Your task to perform on an android device: see tabs open on other devices in the chrome app Image 0: 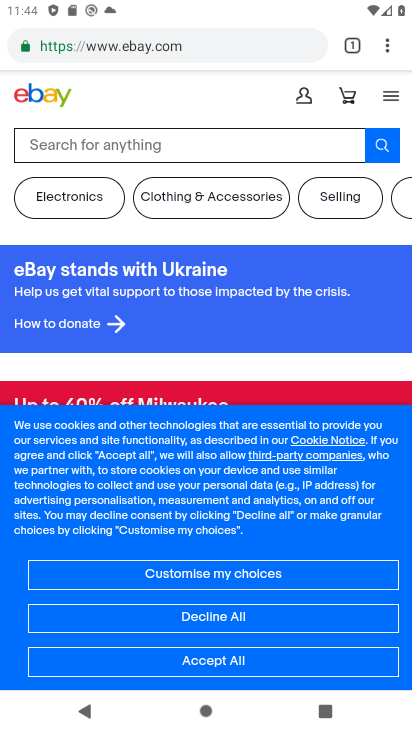
Step 0: press home button
Your task to perform on an android device: see tabs open on other devices in the chrome app Image 1: 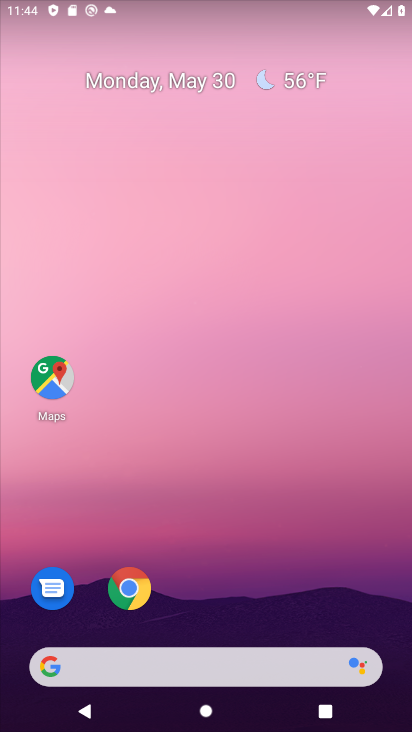
Step 1: click (141, 596)
Your task to perform on an android device: see tabs open on other devices in the chrome app Image 2: 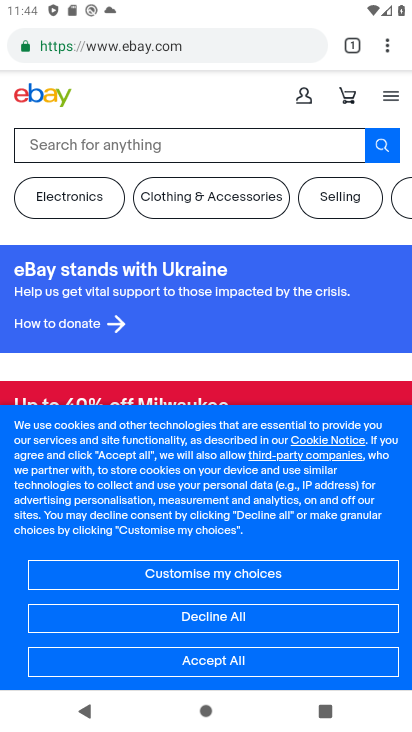
Step 2: click (388, 53)
Your task to perform on an android device: see tabs open on other devices in the chrome app Image 3: 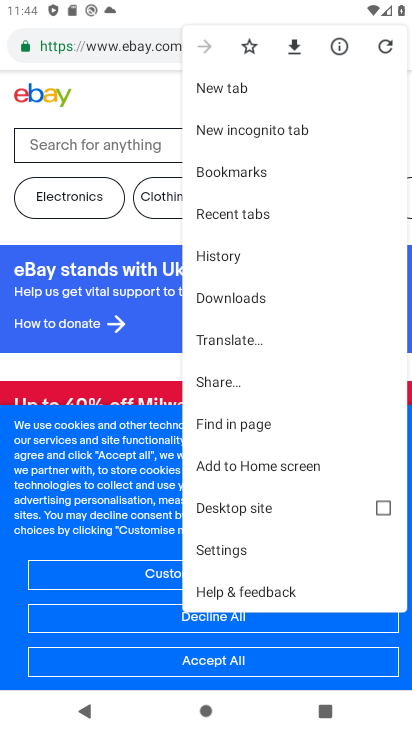
Step 3: click (268, 215)
Your task to perform on an android device: see tabs open on other devices in the chrome app Image 4: 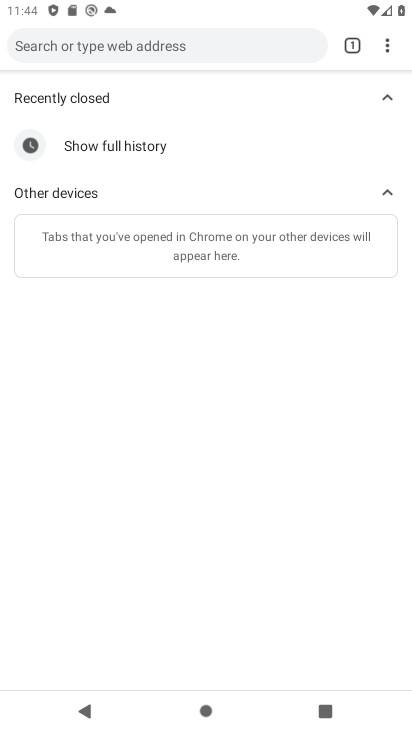
Step 4: task complete